Your task to perform on an android device: open the mobile data screen to see how much data has been used Image 0: 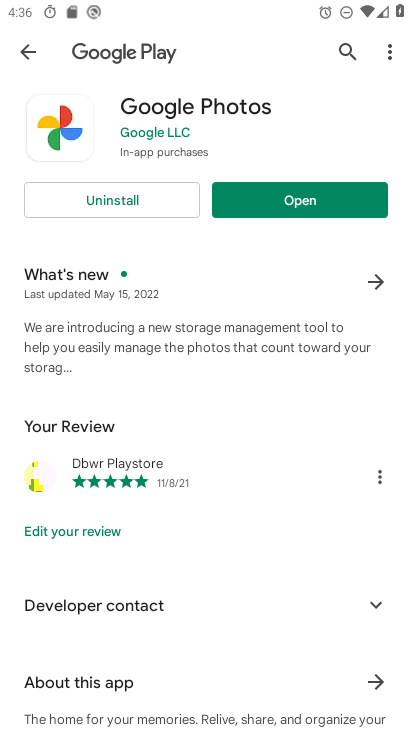
Step 0: press home button
Your task to perform on an android device: open the mobile data screen to see how much data has been used Image 1: 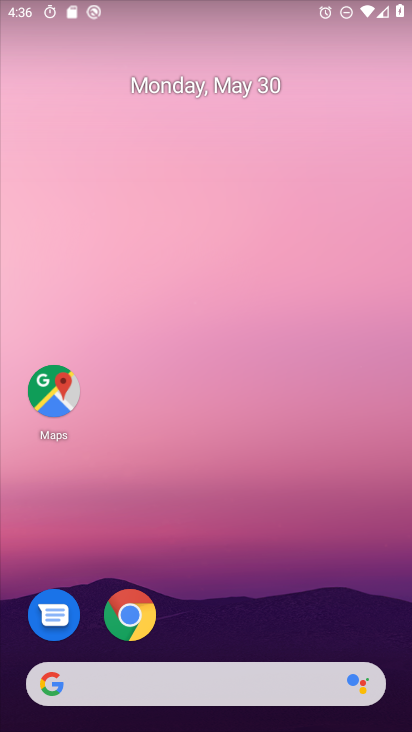
Step 1: drag from (293, 596) to (305, 92)
Your task to perform on an android device: open the mobile data screen to see how much data has been used Image 2: 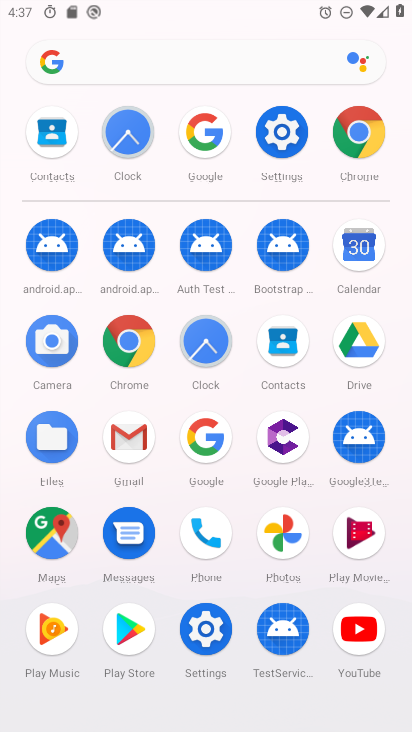
Step 2: click (282, 132)
Your task to perform on an android device: open the mobile data screen to see how much data has been used Image 3: 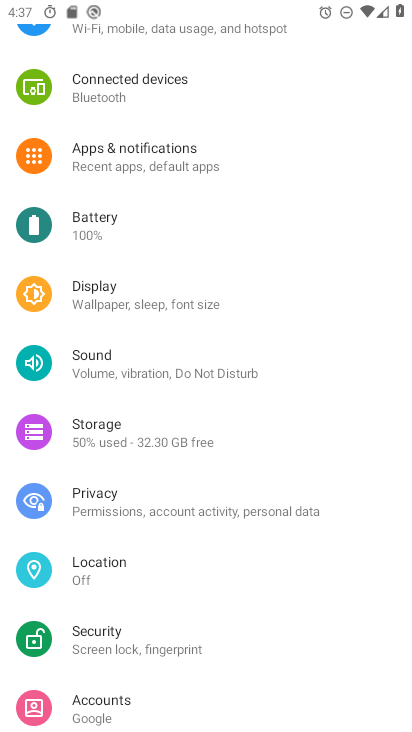
Step 3: drag from (176, 111) to (184, 291)
Your task to perform on an android device: open the mobile data screen to see how much data has been used Image 4: 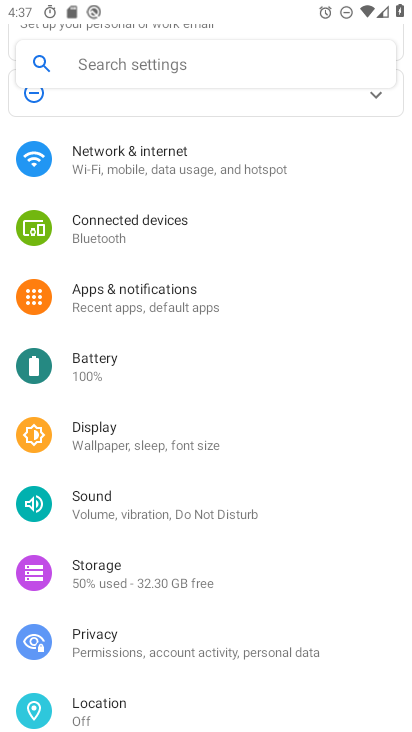
Step 4: click (155, 165)
Your task to perform on an android device: open the mobile data screen to see how much data has been used Image 5: 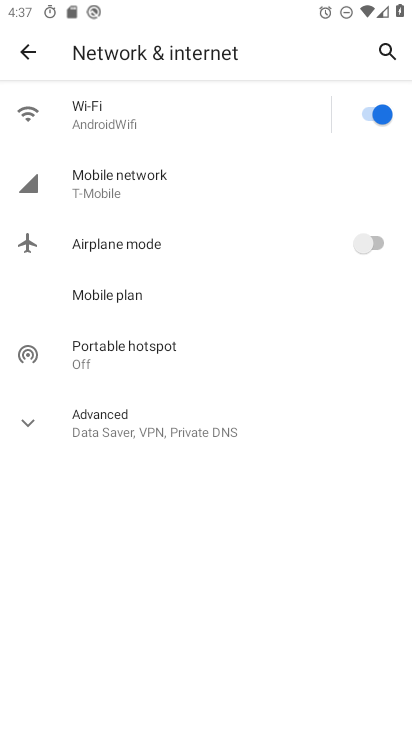
Step 5: click (106, 189)
Your task to perform on an android device: open the mobile data screen to see how much data has been used Image 6: 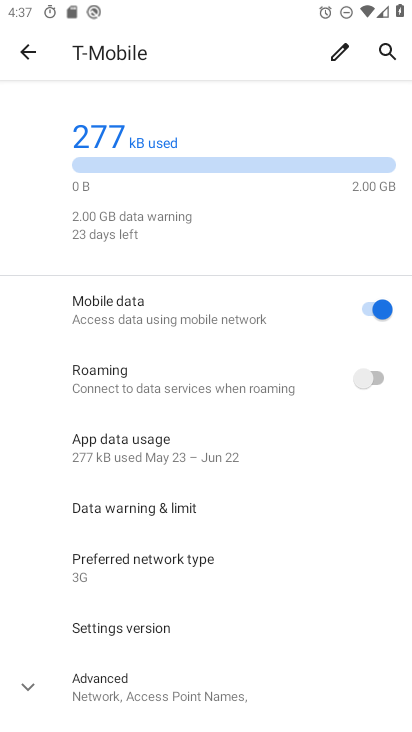
Step 6: task complete